Your task to perform on an android device: What's the weather going to be this weekend? Image 0: 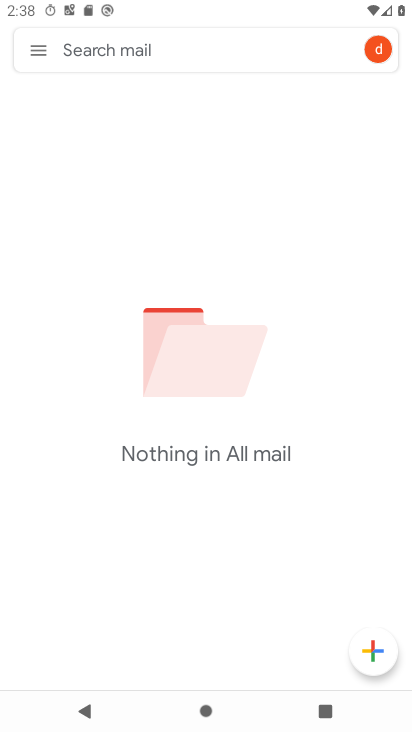
Step 0: press home button
Your task to perform on an android device: What's the weather going to be this weekend? Image 1: 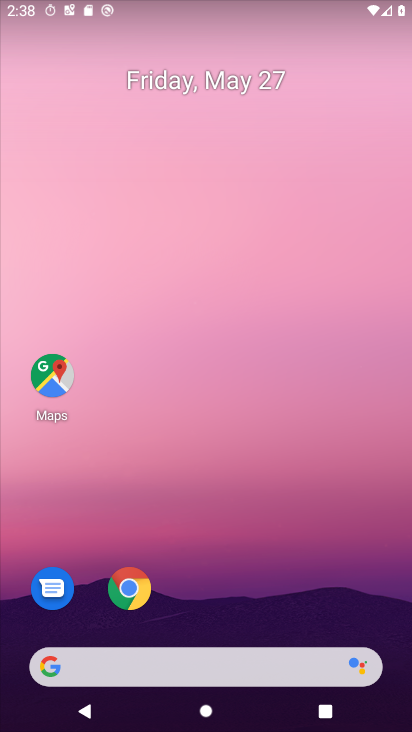
Step 1: click (144, 649)
Your task to perform on an android device: What's the weather going to be this weekend? Image 2: 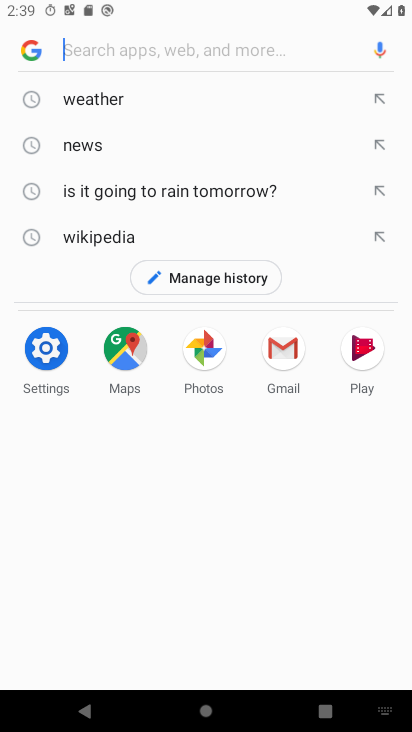
Step 2: type "what's the weather going to be this weekend"
Your task to perform on an android device: What's the weather going to be this weekend? Image 3: 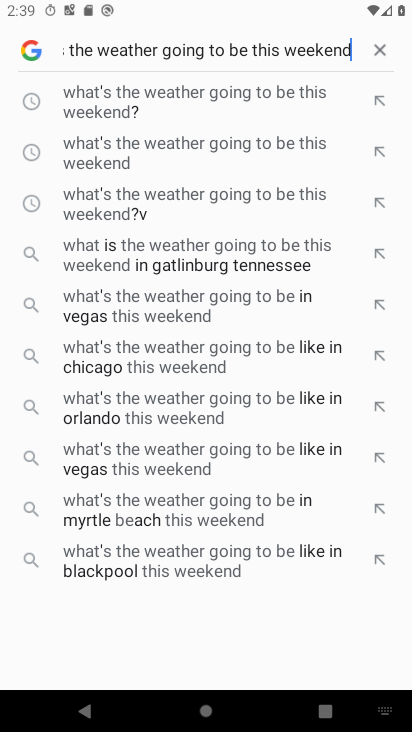
Step 3: click (209, 100)
Your task to perform on an android device: What's the weather going to be this weekend? Image 4: 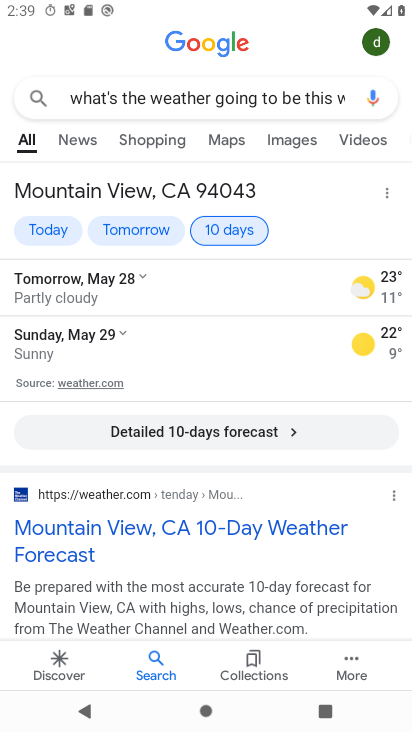
Step 4: task complete